Your task to perform on an android device: Check the weather Image 0: 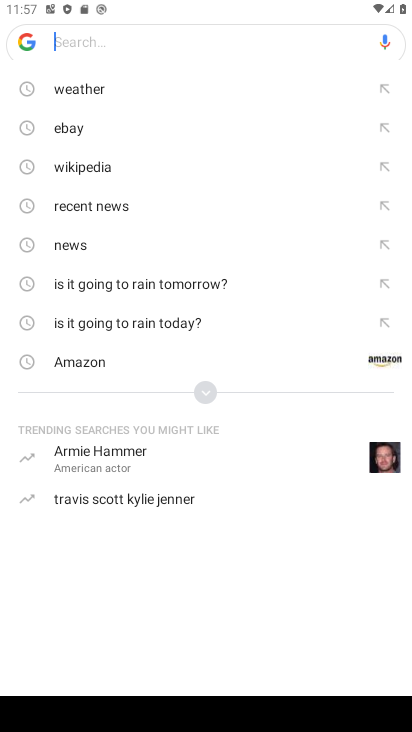
Step 0: click (79, 81)
Your task to perform on an android device: Check the weather Image 1: 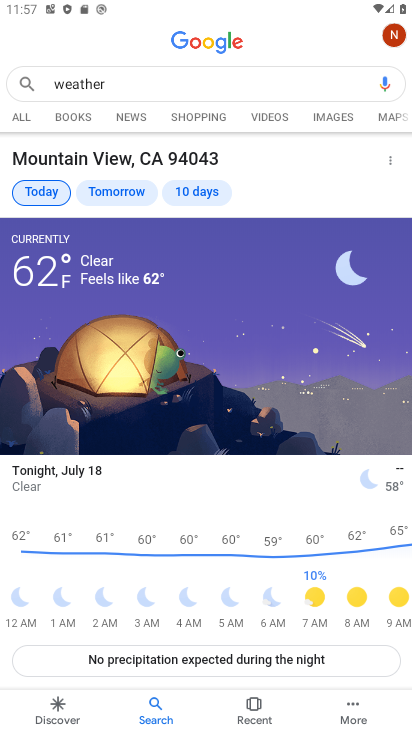
Step 1: task complete